Your task to perform on an android device: check storage Image 0: 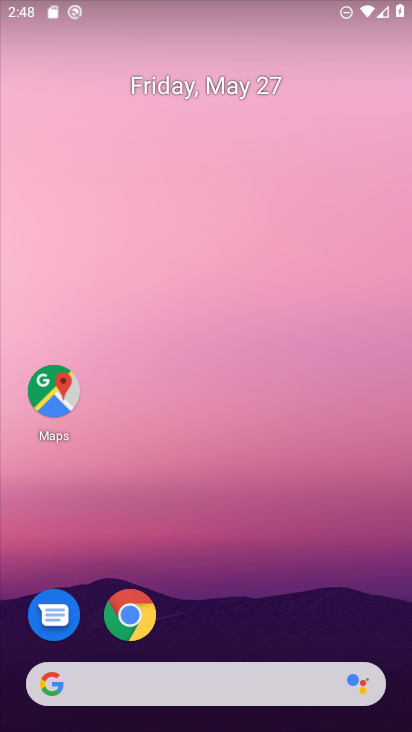
Step 0: drag from (228, 345) to (149, 9)
Your task to perform on an android device: check storage Image 1: 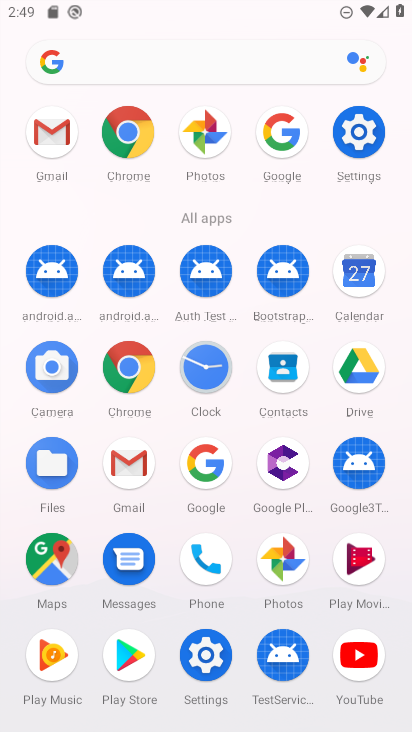
Step 1: click (352, 133)
Your task to perform on an android device: check storage Image 2: 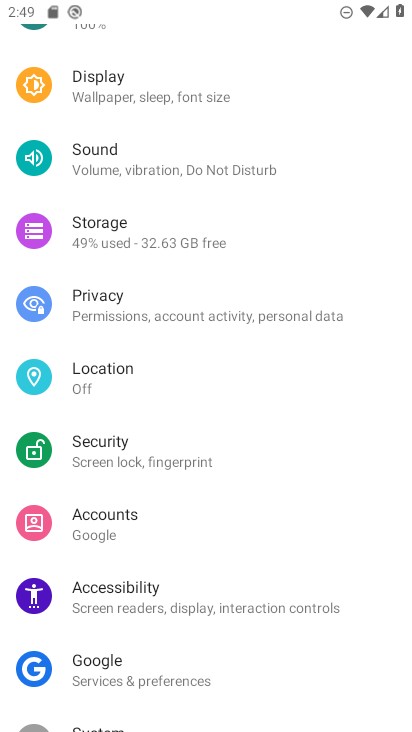
Step 2: click (168, 231)
Your task to perform on an android device: check storage Image 3: 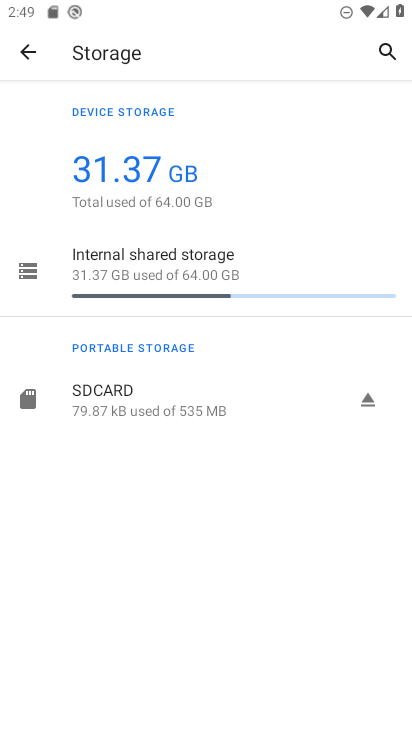
Step 3: task complete